Your task to perform on an android device: Go to calendar. Show me events next week Image 0: 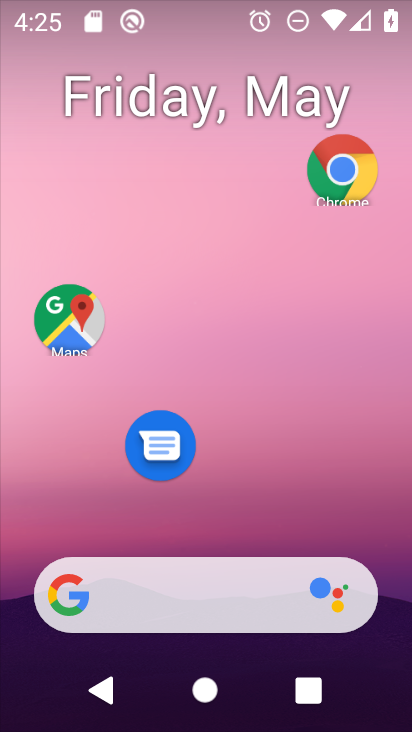
Step 0: drag from (242, 530) to (214, 5)
Your task to perform on an android device: Go to calendar. Show me events next week Image 1: 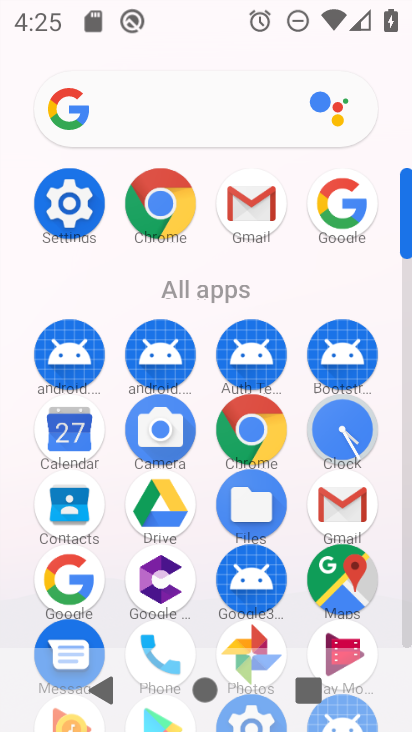
Step 1: click (80, 441)
Your task to perform on an android device: Go to calendar. Show me events next week Image 2: 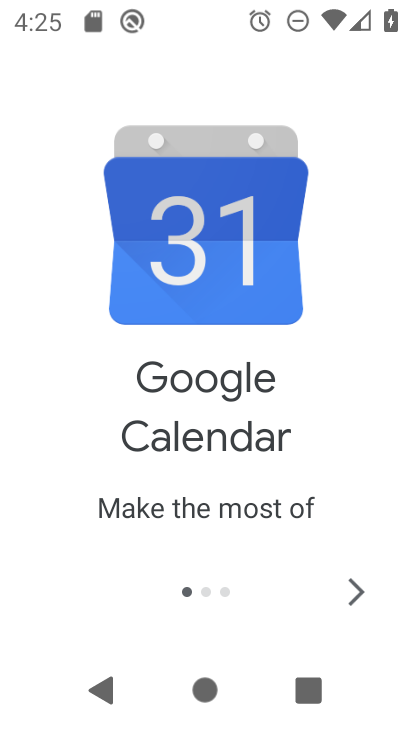
Step 2: click (346, 601)
Your task to perform on an android device: Go to calendar. Show me events next week Image 3: 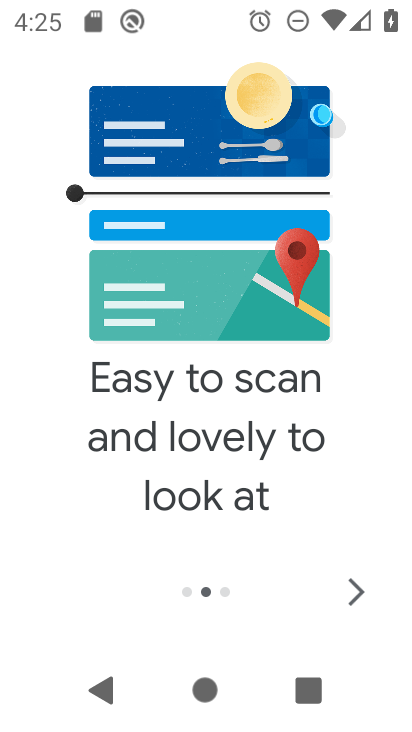
Step 3: click (352, 601)
Your task to perform on an android device: Go to calendar. Show me events next week Image 4: 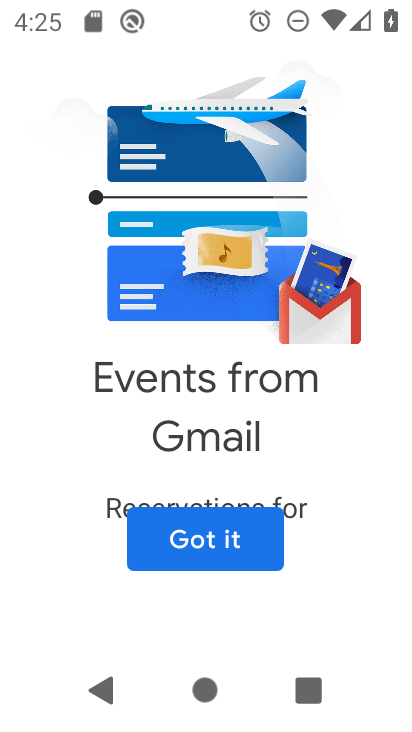
Step 4: click (225, 552)
Your task to perform on an android device: Go to calendar. Show me events next week Image 5: 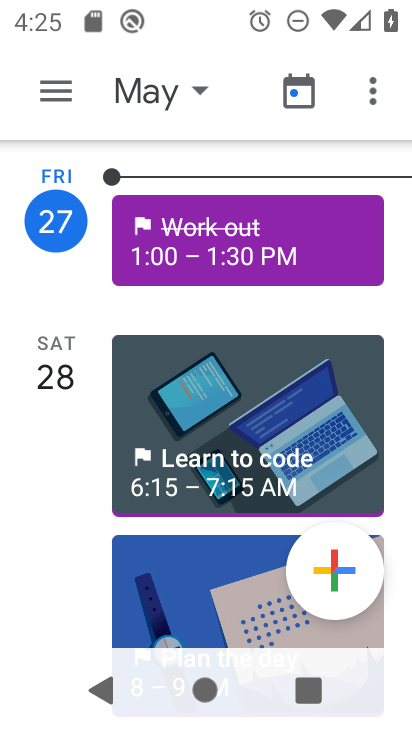
Step 5: task complete